Your task to perform on an android device: Open Youtube and go to "Your channel" Image 0: 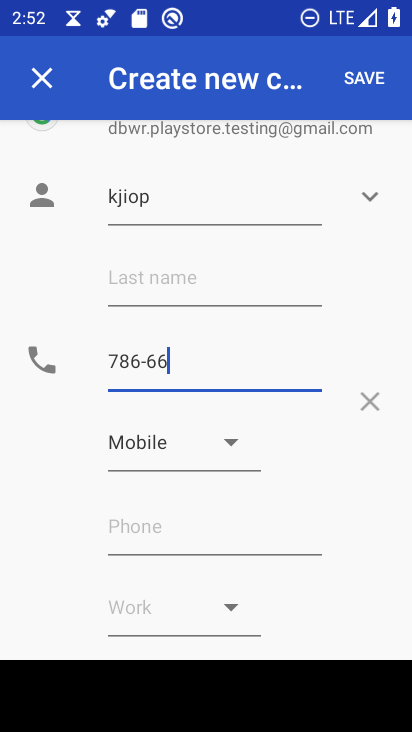
Step 0: press home button
Your task to perform on an android device: Open Youtube and go to "Your channel" Image 1: 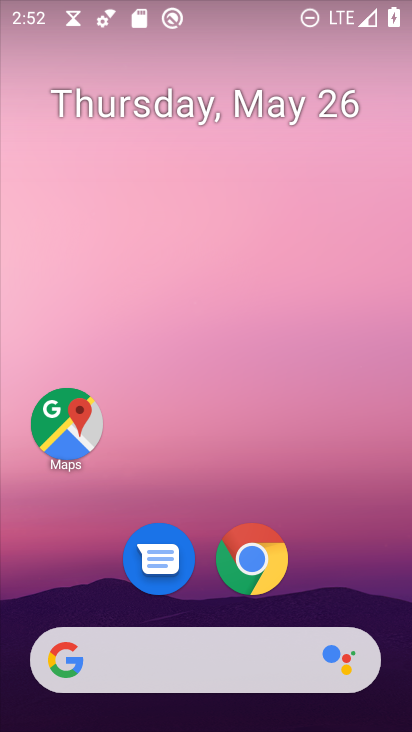
Step 1: drag from (251, 657) to (364, 86)
Your task to perform on an android device: Open Youtube and go to "Your channel" Image 2: 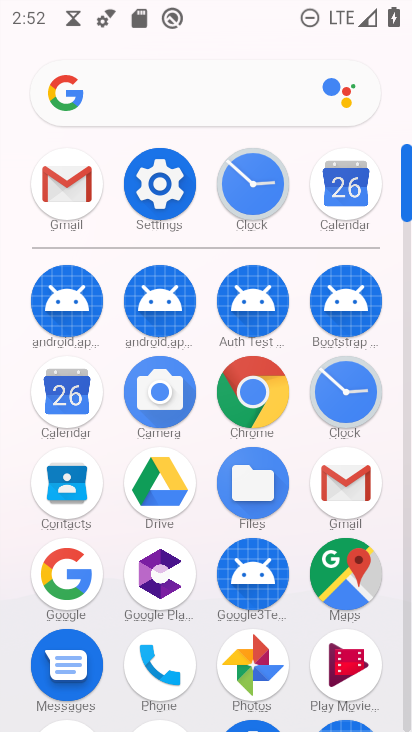
Step 2: drag from (301, 666) to (370, 163)
Your task to perform on an android device: Open Youtube and go to "Your channel" Image 3: 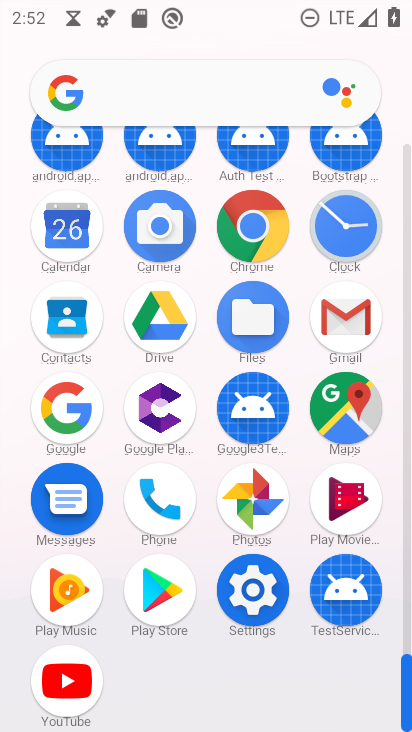
Step 3: click (73, 688)
Your task to perform on an android device: Open Youtube and go to "Your channel" Image 4: 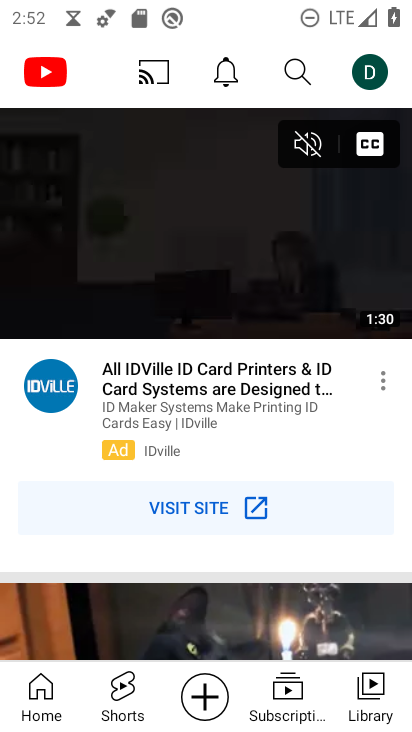
Step 4: click (366, 64)
Your task to perform on an android device: Open Youtube and go to "Your channel" Image 5: 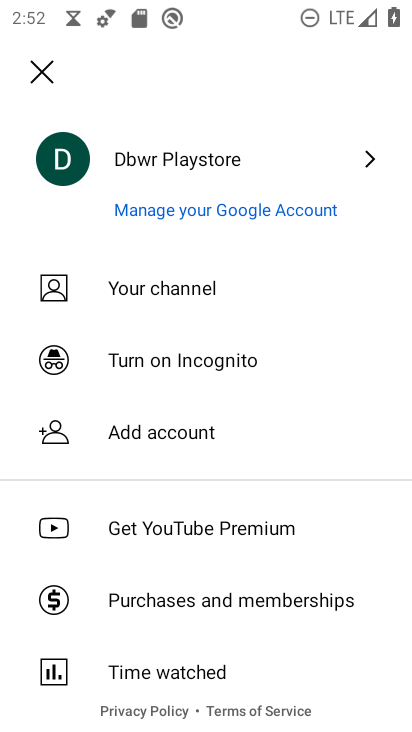
Step 5: click (151, 288)
Your task to perform on an android device: Open Youtube and go to "Your channel" Image 6: 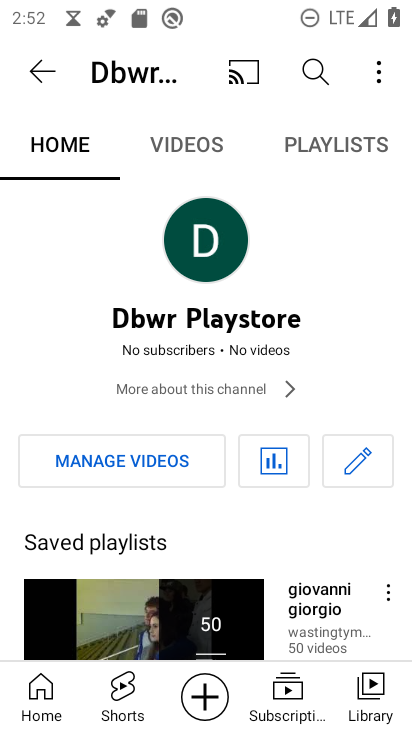
Step 6: task complete